Your task to perform on an android device: set default search engine in the chrome app Image 0: 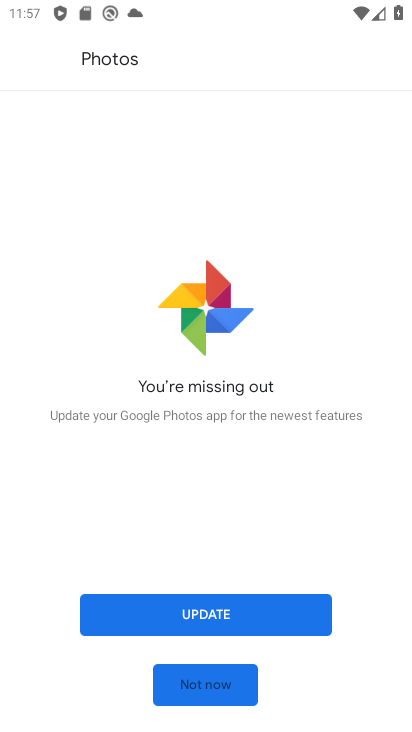
Step 0: press home button
Your task to perform on an android device: set default search engine in the chrome app Image 1: 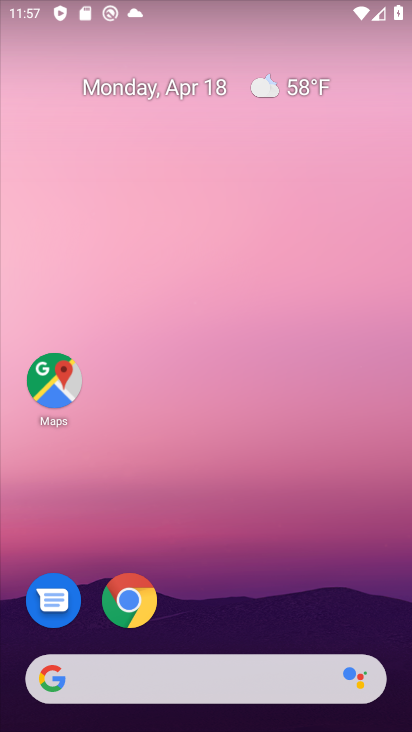
Step 1: drag from (230, 697) to (318, 314)
Your task to perform on an android device: set default search engine in the chrome app Image 2: 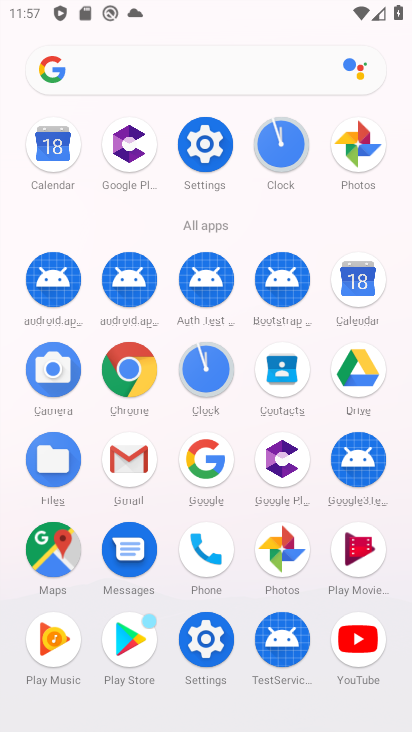
Step 2: click (139, 370)
Your task to perform on an android device: set default search engine in the chrome app Image 3: 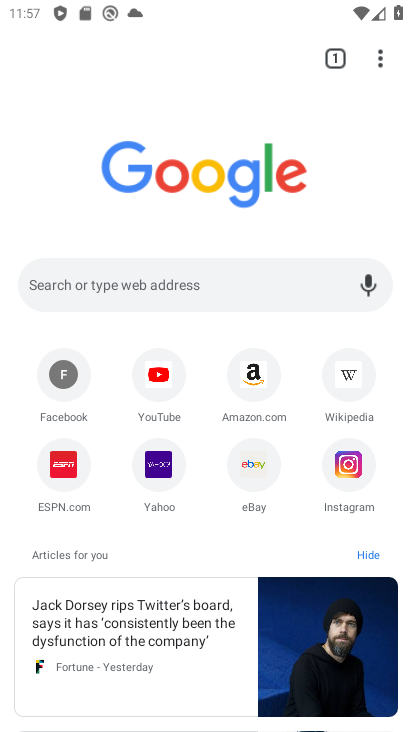
Step 3: drag from (305, 264) to (373, 70)
Your task to perform on an android device: set default search engine in the chrome app Image 4: 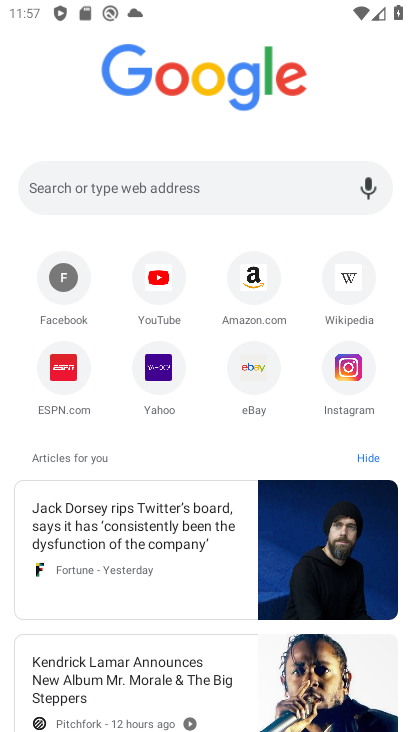
Step 4: click (373, 70)
Your task to perform on an android device: set default search engine in the chrome app Image 5: 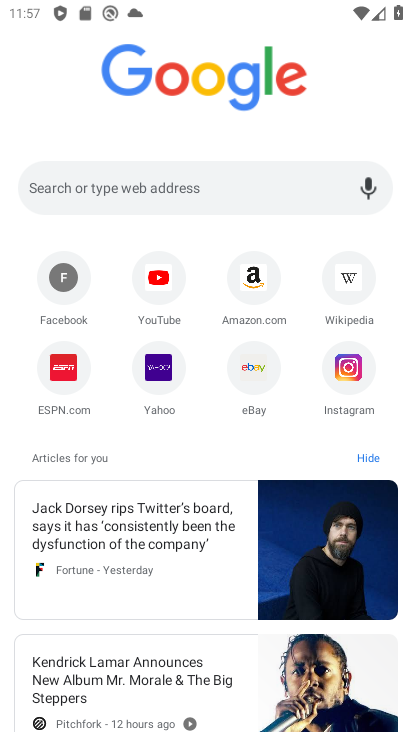
Step 5: drag from (279, 147) to (252, 236)
Your task to perform on an android device: set default search engine in the chrome app Image 6: 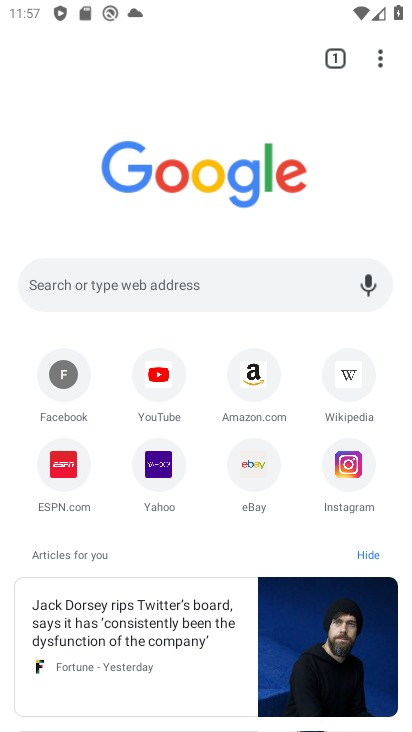
Step 6: click (375, 59)
Your task to perform on an android device: set default search engine in the chrome app Image 7: 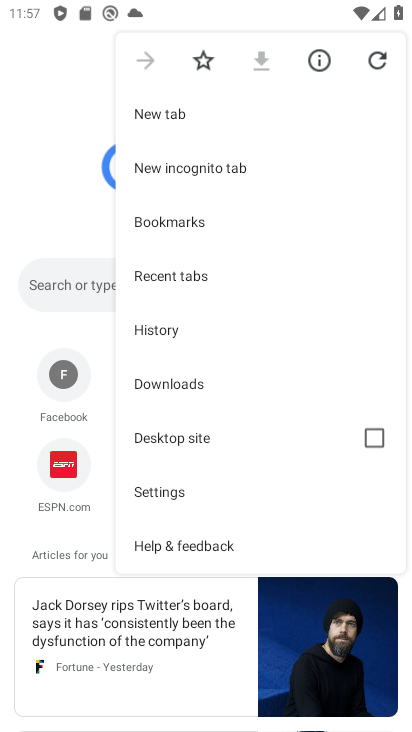
Step 7: click (175, 482)
Your task to perform on an android device: set default search engine in the chrome app Image 8: 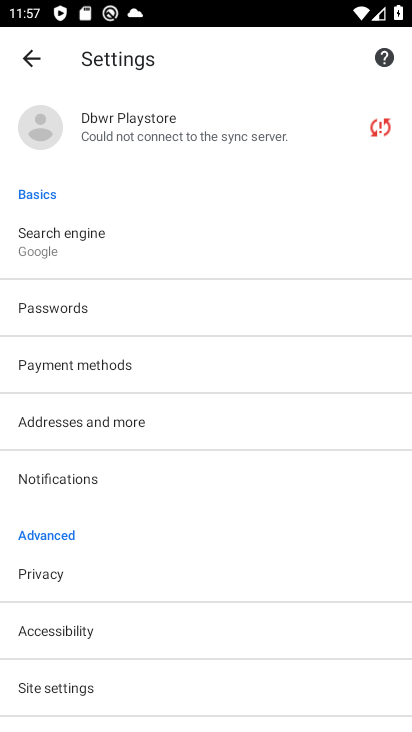
Step 8: click (70, 238)
Your task to perform on an android device: set default search engine in the chrome app Image 9: 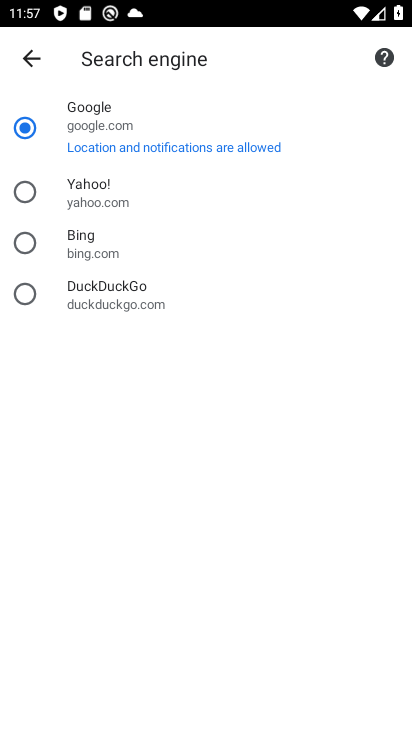
Step 9: task complete